Your task to perform on an android device: Go to display settings Image 0: 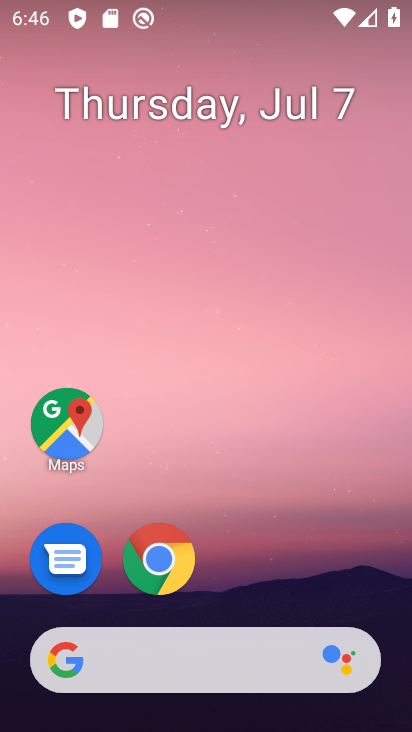
Step 0: drag from (253, 643) to (303, 76)
Your task to perform on an android device: Go to display settings Image 1: 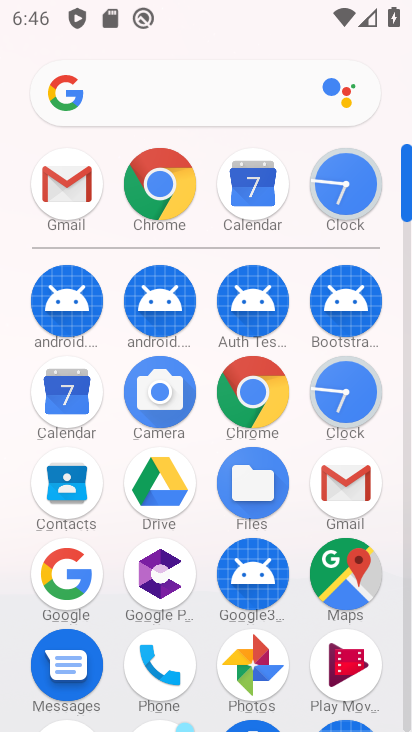
Step 1: drag from (260, 553) to (239, 51)
Your task to perform on an android device: Go to display settings Image 2: 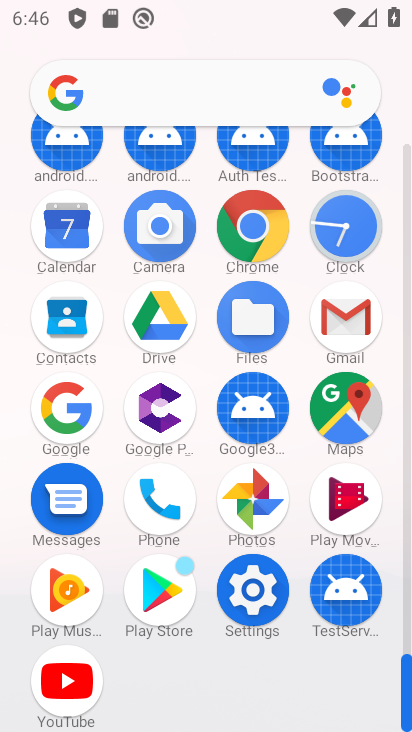
Step 2: click (267, 603)
Your task to perform on an android device: Go to display settings Image 3: 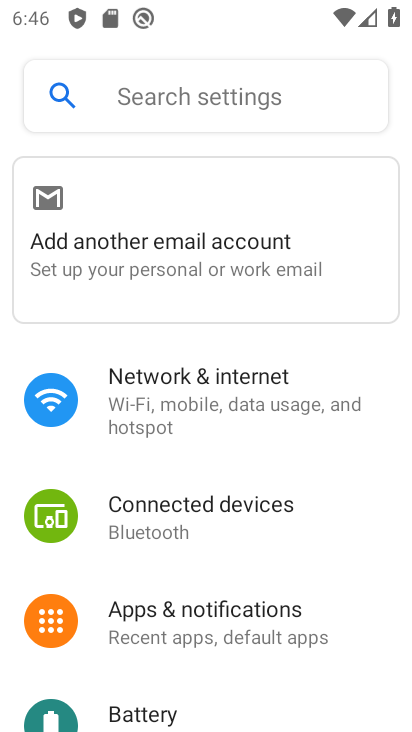
Step 3: drag from (255, 656) to (294, 399)
Your task to perform on an android device: Go to display settings Image 4: 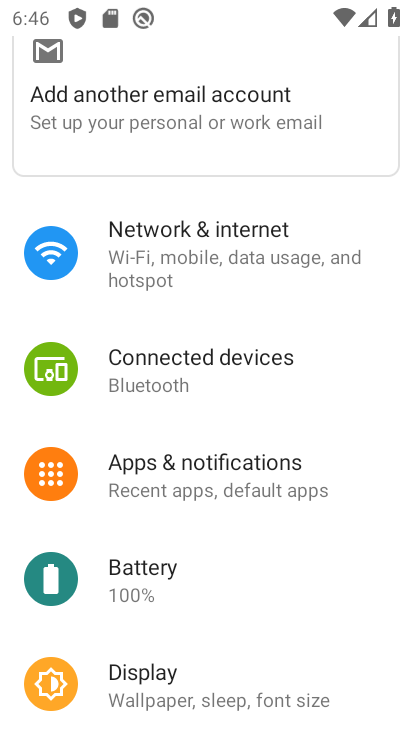
Step 4: click (200, 691)
Your task to perform on an android device: Go to display settings Image 5: 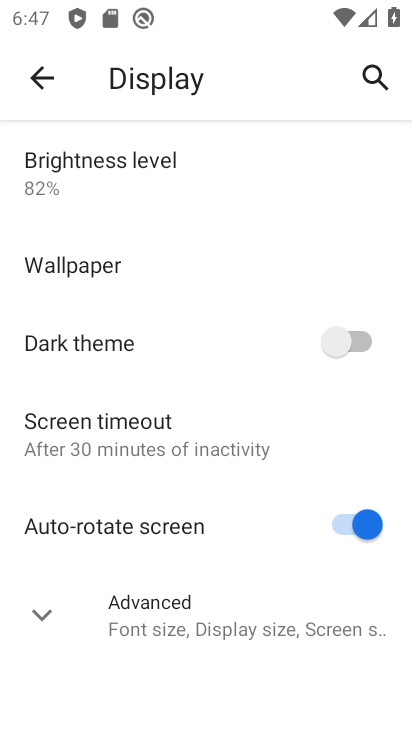
Step 5: task complete